Your task to perform on an android device: Clear all items from cart on costco.com. Search for "razer nari" on costco.com, select the first entry, add it to the cart, then select checkout. Image 0: 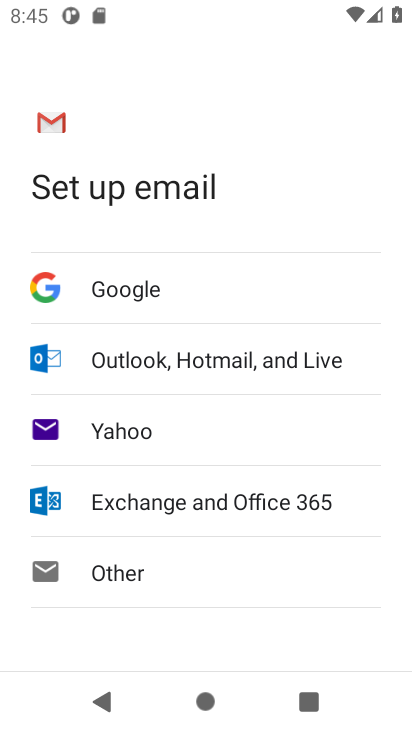
Step 0: press home button
Your task to perform on an android device: Clear all items from cart on costco.com. Search for "razer nari" on costco.com, select the first entry, add it to the cart, then select checkout. Image 1: 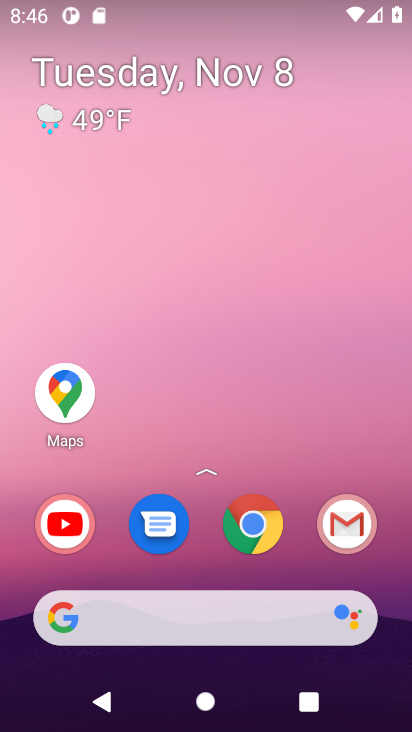
Step 1: click (245, 527)
Your task to perform on an android device: Clear all items from cart on costco.com. Search for "razer nari" on costco.com, select the first entry, add it to the cart, then select checkout. Image 2: 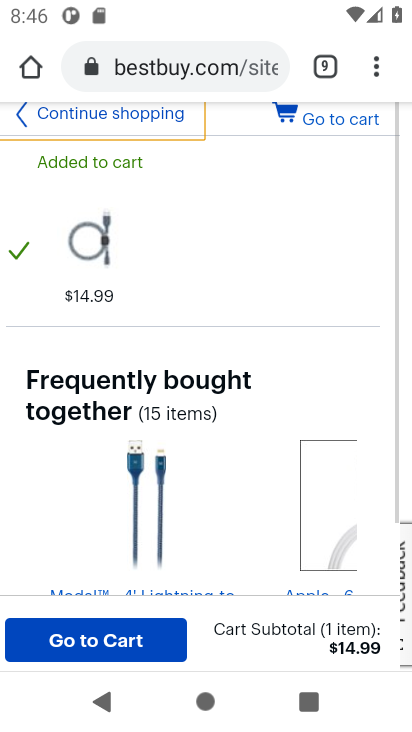
Step 2: click (146, 69)
Your task to perform on an android device: Clear all items from cart on costco.com. Search for "razer nari" on costco.com, select the first entry, add it to the cart, then select checkout. Image 3: 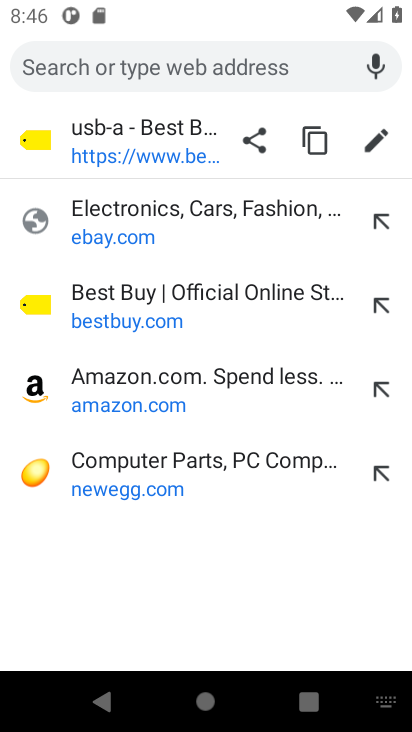
Step 3: type "costco.com"
Your task to perform on an android device: Clear all items from cart on costco.com. Search for "razer nari" on costco.com, select the first entry, add it to the cart, then select checkout. Image 4: 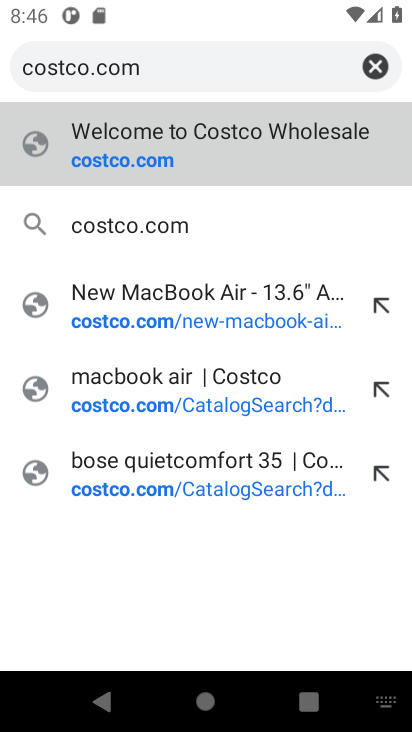
Step 4: click (126, 166)
Your task to perform on an android device: Clear all items from cart on costco.com. Search for "razer nari" on costco.com, select the first entry, add it to the cart, then select checkout. Image 5: 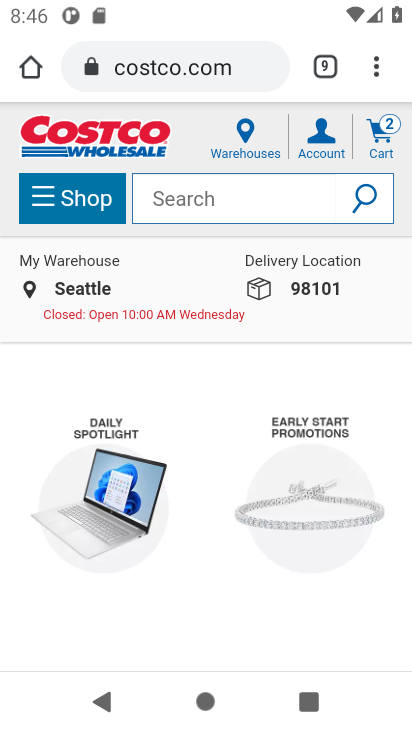
Step 5: click (383, 140)
Your task to perform on an android device: Clear all items from cart on costco.com. Search for "razer nari" on costco.com, select the first entry, add it to the cart, then select checkout. Image 6: 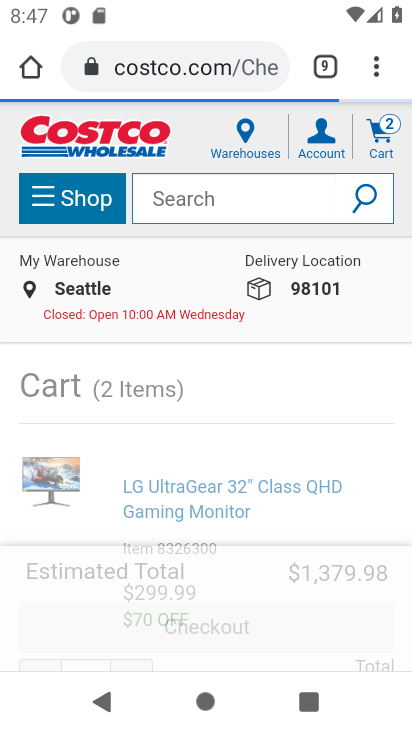
Step 6: drag from (235, 490) to (235, 236)
Your task to perform on an android device: Clear all items from cart on costco.com. Search for "razer nari" on costco.com, select the first entry, add it to the cart, then select checkout. Image 7: 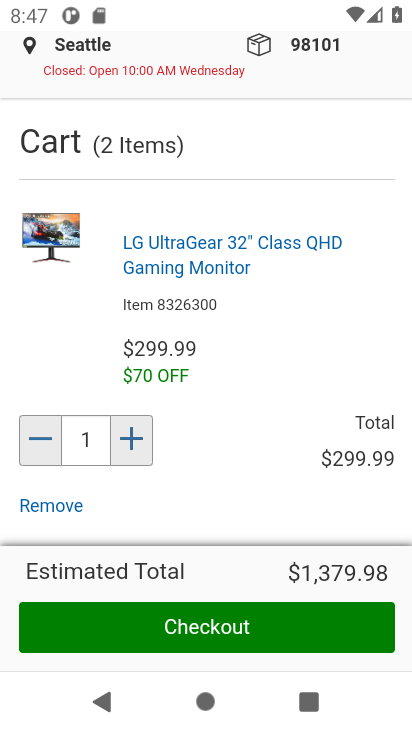
Step 7: drag from (201, 454) to (205, 278)
Your task to perform on an android device: Clear all items from cart on costco.com. Search for "razer nari" on costco.com, select the first entry, add it to the cart, then select checkout. Image 8: 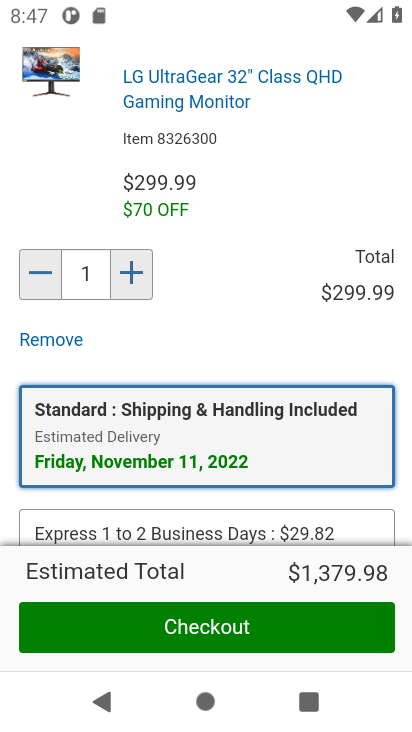
Step 8: click (36, 340)
Your task to perform on an android device: Clear all items from cart on costco.com. Search for "razer nari" on costco.com, select the first entry, add it to the cart, then select checkout. Image 9: 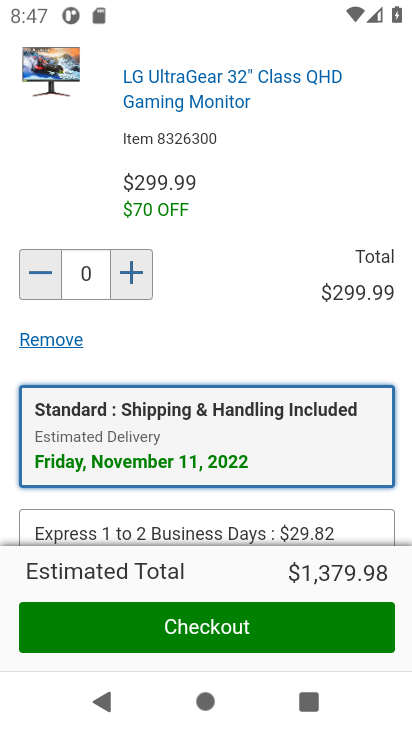
Step 9: click (60, 340)
Your task to perform on an android device: Clear all items from cart on costco.com. Search for "razer nari" on costco.com, select the first entry, add it to the cart, then select checkout. Image 10: 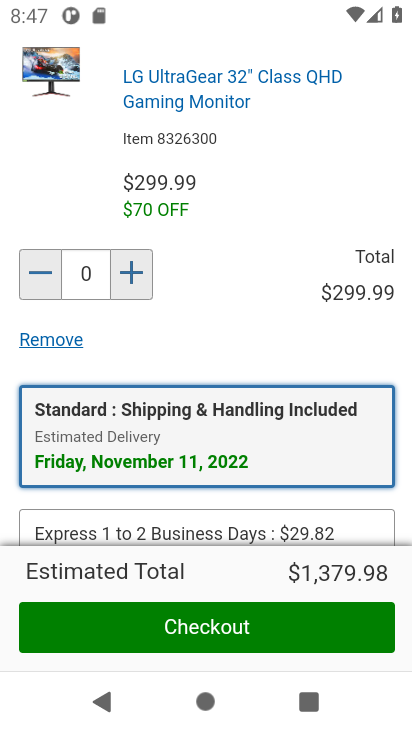
Step 10: drag from (201, 449) to (186, 75)
Your task to perform on an android device: Clear all items from cart on costco.com. Search for "razer nari" on costco.com, select the first entry, add it to the cart, then select checkout. Image 11: 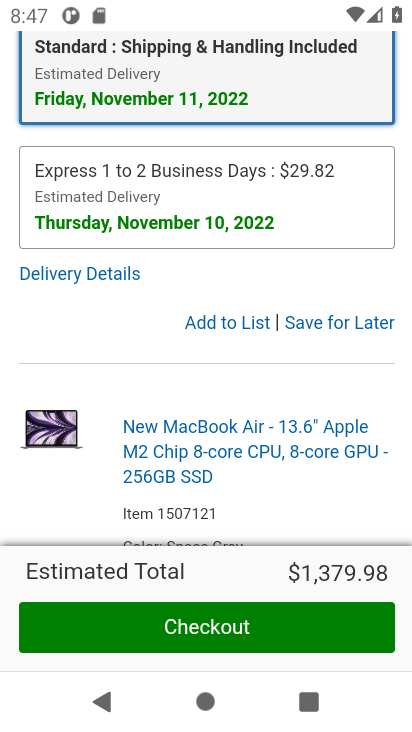
Step 11: click (333, 313)
Your task to perform on an android device: Clear all items from cart on costco.com. Search for "razer nari" on costco.com, select the first entry, add it to the cart, then select checkout. Image 12: 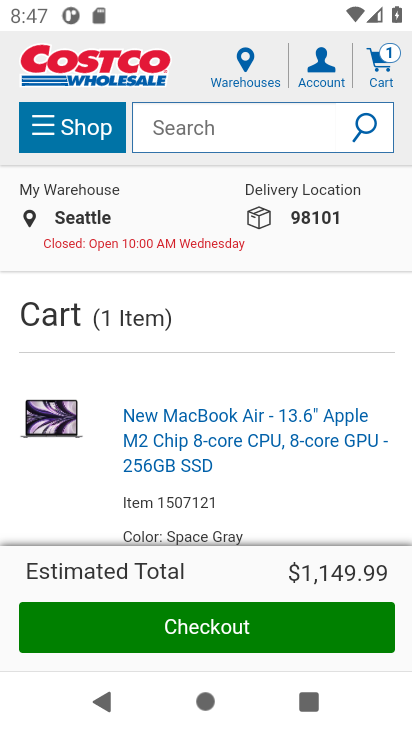
Step 12: drag from (282, 484) to (268, 142)
Your task to perform on an android device: Clear all items from cart on costco.com. Search for "razer nari" on costco.com, select the first entry, add it to the cart, then select checkout. Image 13: 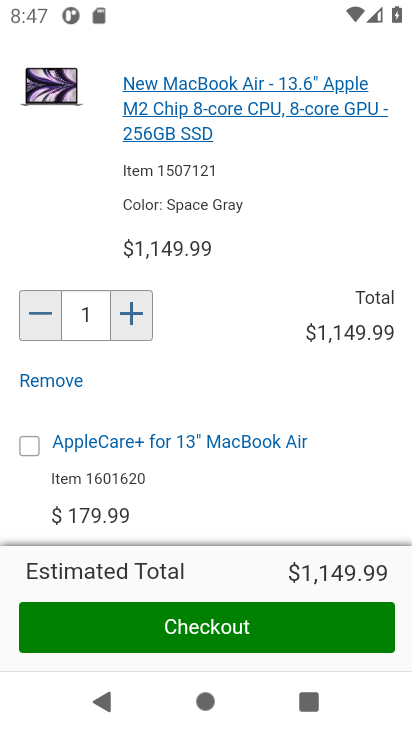
Step 13: drag from (313, 451) to (278, 186)
Your task to perform on an android device: Clear all items from cart on costco.com. Search for "razer nari" on costco.com, select the first entry, add it to the cart, then select checkout. Image 14: 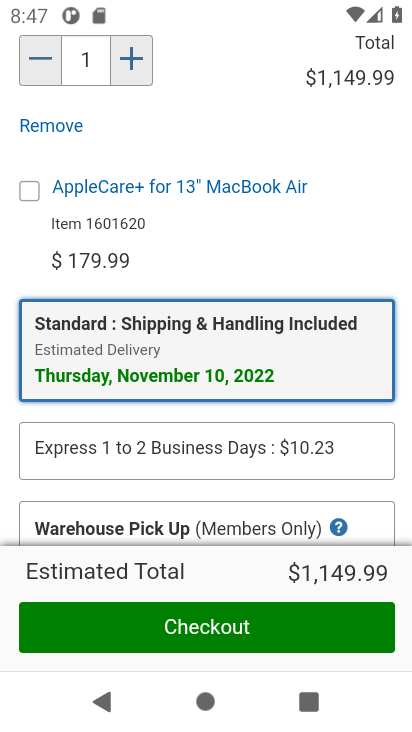
Step 14: drag from (296, 428) to (274, 212)
Your task to perform on an android device: Clear all items from cart on costco.com. Search for "razer nari" on costco.com, select the first entry, add it to the cart, then select checkout. Image 15: 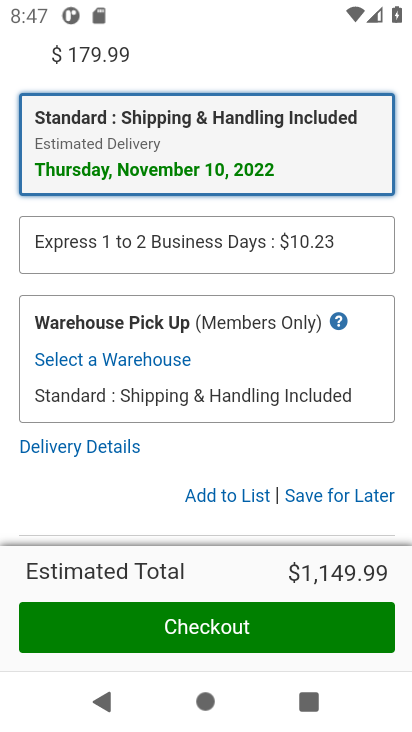
Step 15: click (309, 497)
Your task to perform on an android device: Clear all items from cart on costco.com. Search for "razer nari" on costco.com, select the first entry, add it to the cart, then select checkout. Image 16: 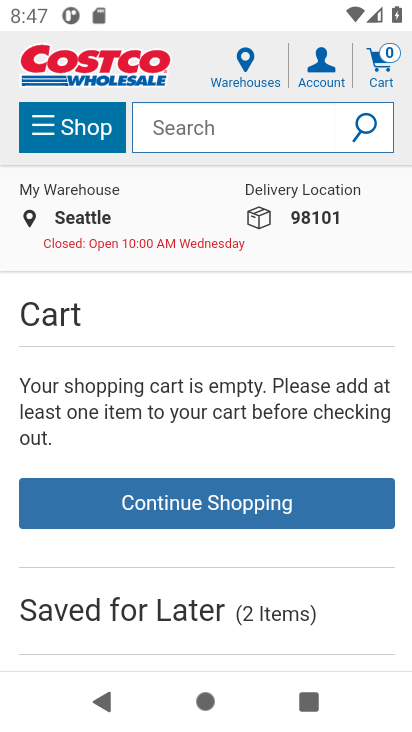
Step 16: click (190, 134)
Your task to perform on an android device: Clear all items from cart on costco.com. Search for "razer nari" on costco.com, select the first entry, add it to the cart, then select checkout. Image 17: 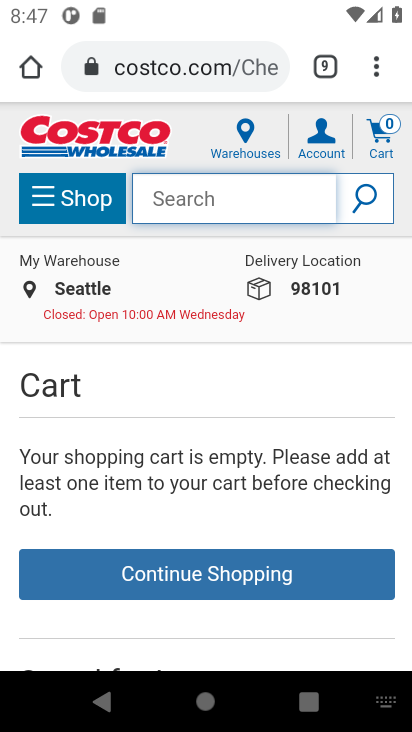
Step 17: type "razer nari"
Your task to perform on an android device: Clear all items from cart on costco.com. Search for "razer nari" on costco.com, select the first entry, add it to the cart, then select checkout. Image 18: 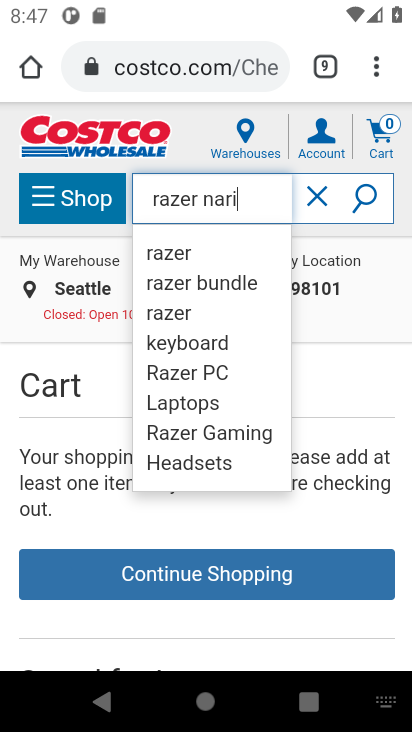
Step 18: click (359, 203)
Your task to perform on an android device: Clear all items from cart on costco.com. Search for "razer nari" on costco.com, select the first entry, add it to the cart, then select checkout. Image 19: 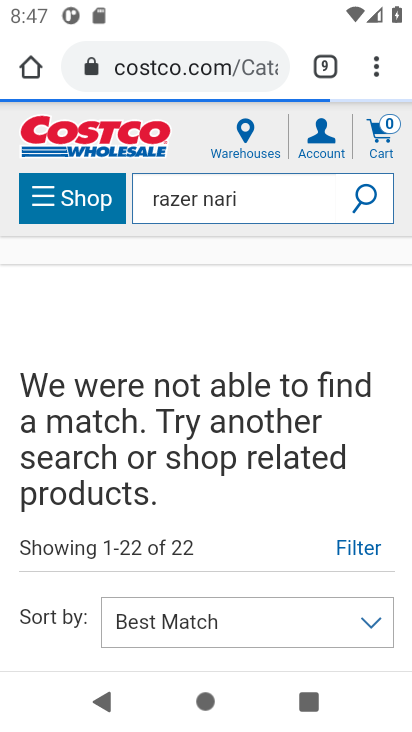
Step 19: task complete